Your task to perform on an android device: change keyboard looks Image 0: 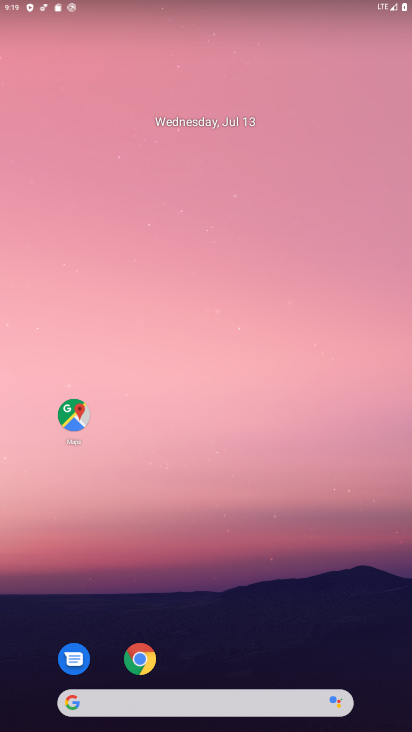
Step 0: drag from (360, 638) to (342, 313)
Your task to perform on an android device: change keyboard looks Image 1: 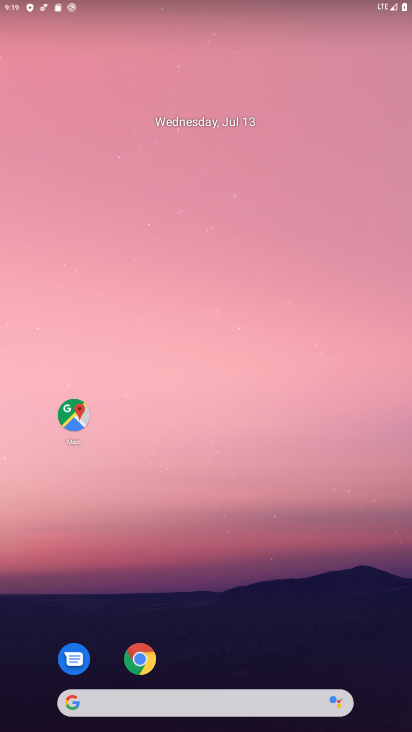
Step 1: drag from (350, 653) to (329, 182)
Your task to perform on an android device: change keyboard looks Image 2: 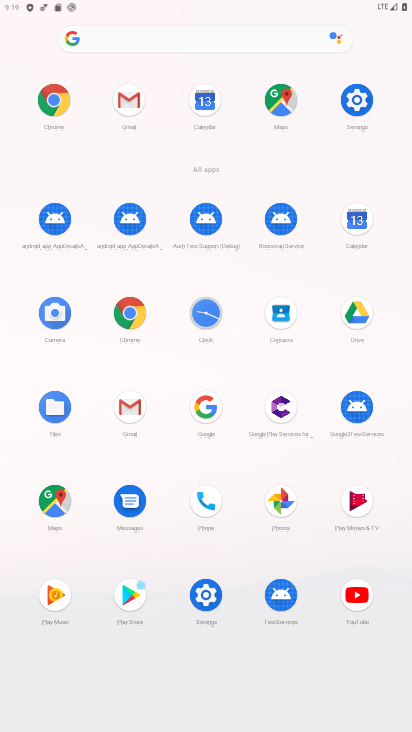
Step 2: click (205, 597)
Your task to perform on an android device: change keyboard looks Image 3: 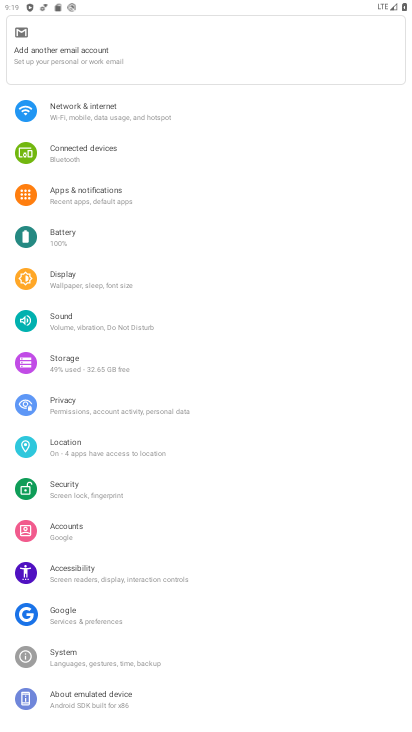
Step 3: click (62, 665)
Your task to perform on an android device: change keyboard looks Image 4: 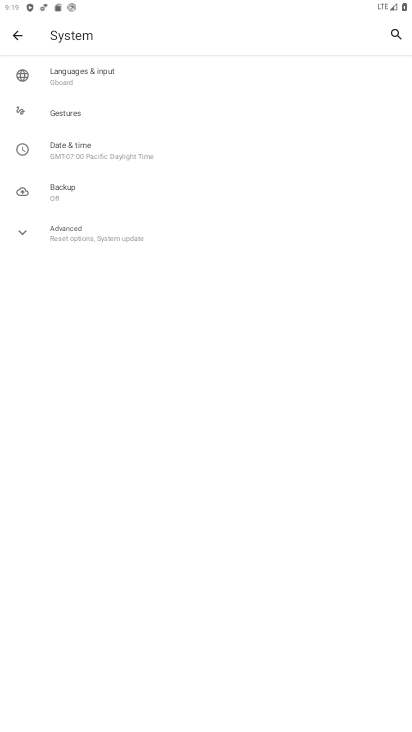
Step 4: click (65, 67)
Your task to perform on an android device: change keyboard looks Image 5: 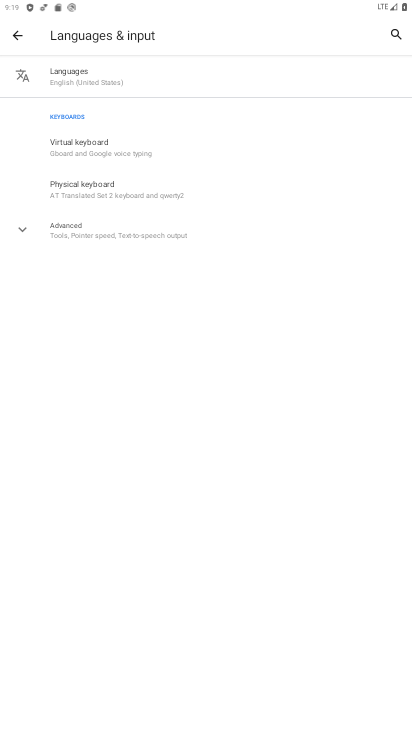
Step 5: click (95, 194)
Your task to perform on an android device: change keyboard looks Image 6: 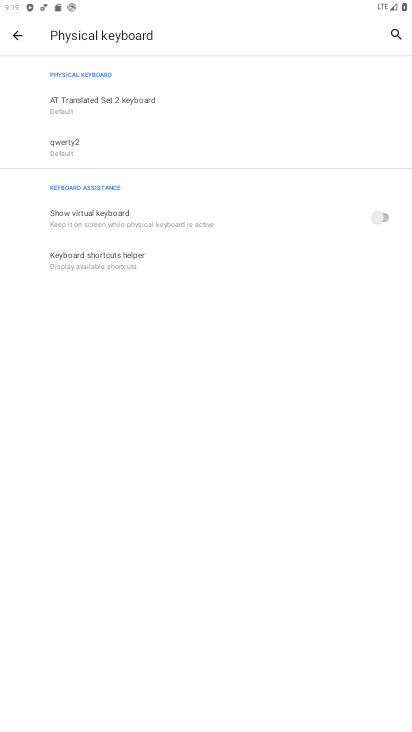
Step 6: click (63, 136)
Your task to perform on an android device: change keyboard looks Image 7: 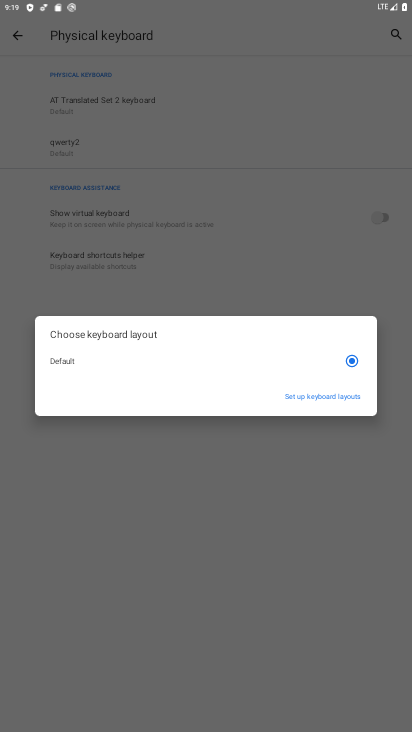
Step 7: click (333, 395)
Your task to perform on an android device: change keyboard looks Image 8: 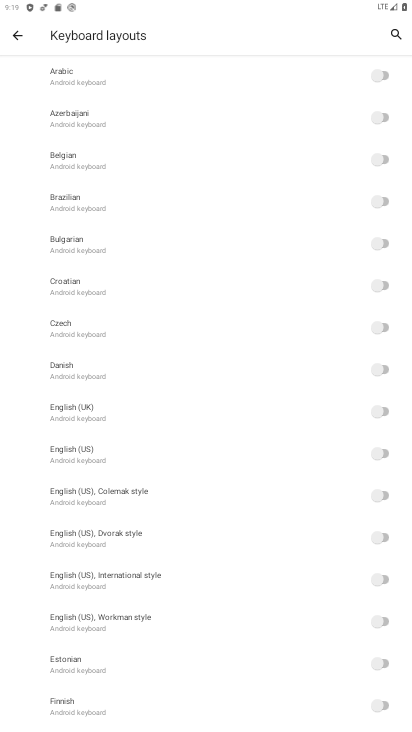
Step 8: click (382, 536)
Your task to perform on an android device: change keyboard looks Image 9: 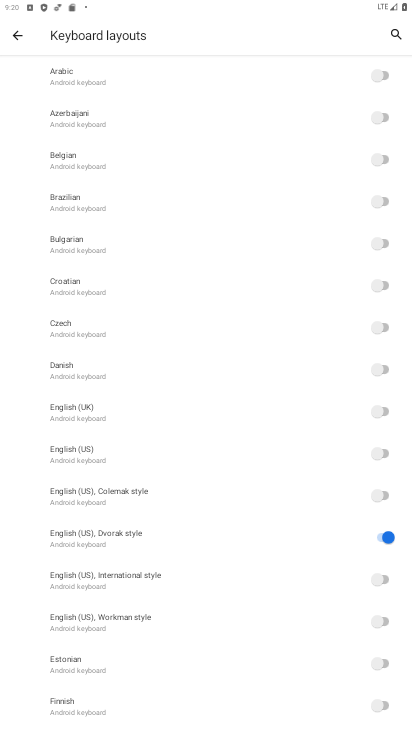
Step 9: task complete